Your task to perform on an android device: Open notification settings Image 0: 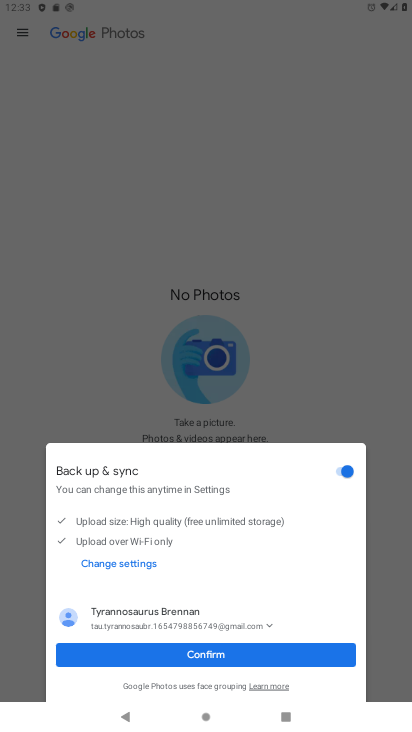
Step 0: press back button
Your task to perform on an android device: Open notification settings Image 1: 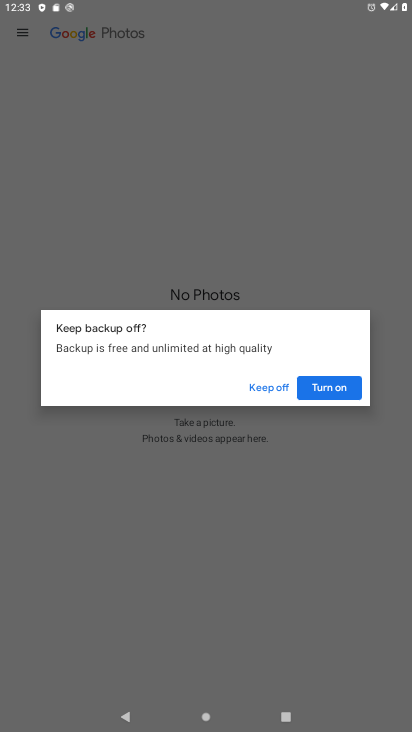
Step 1: click (282, 392)
Your task to perform on an android device: Open notification settings Image 2: 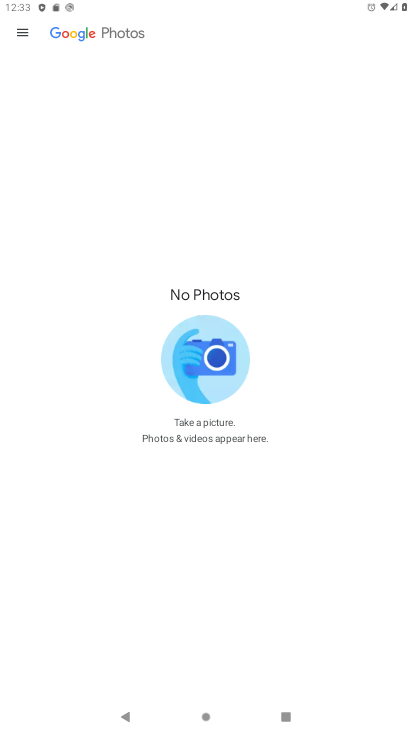
Step 2: press back button
Your task to perform on an android device: Open notification settings Image 3: 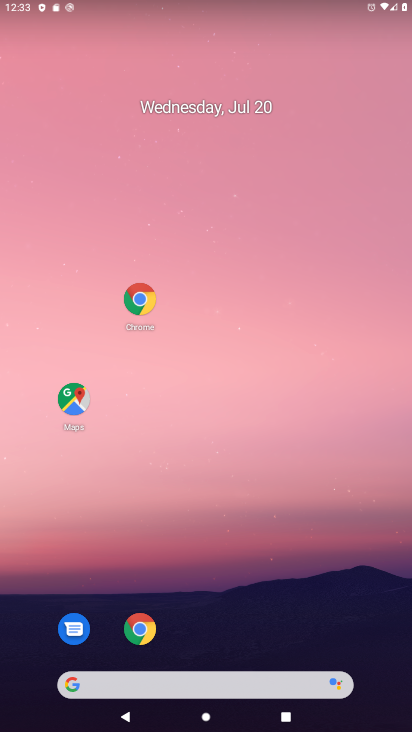
Step 3: drag from (241, 681) to (239, 200)
Your task to perform on an android device: Open notification settings Image 4: 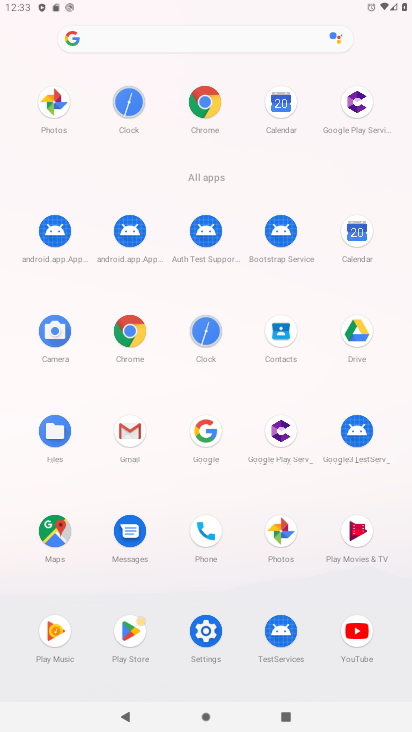
Step 4: click (210, 630)
Your task to perform on an android device: Open notification settings Image 5: 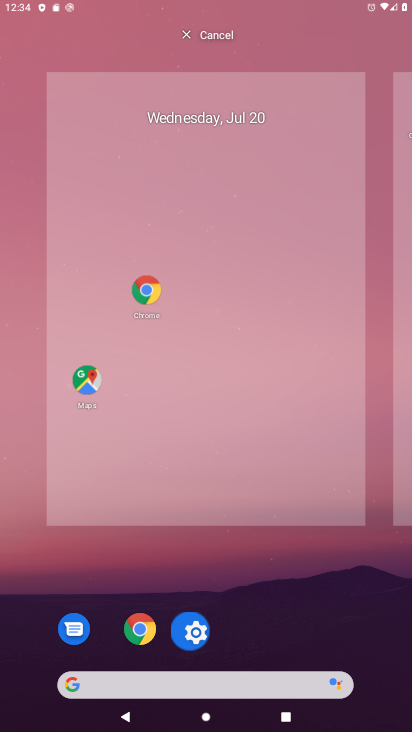
Step 5: click (195, 630)
Your task to perform on an android device: Open notification settings Image 6: 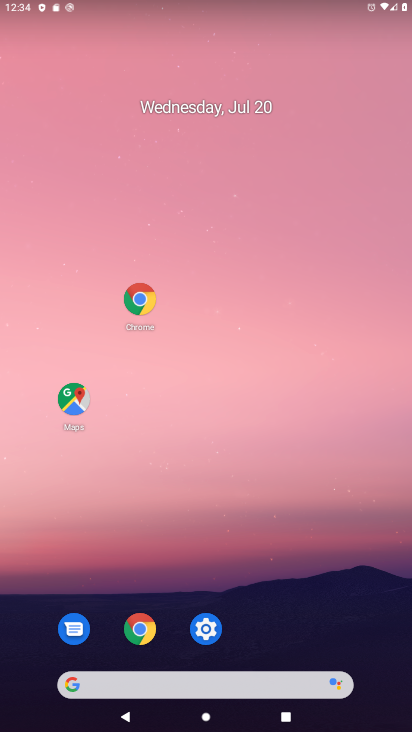
Step 6: drag from (221, 663) to (213, 123)
Your task to perform on an android device: Open notification settings Image 7: 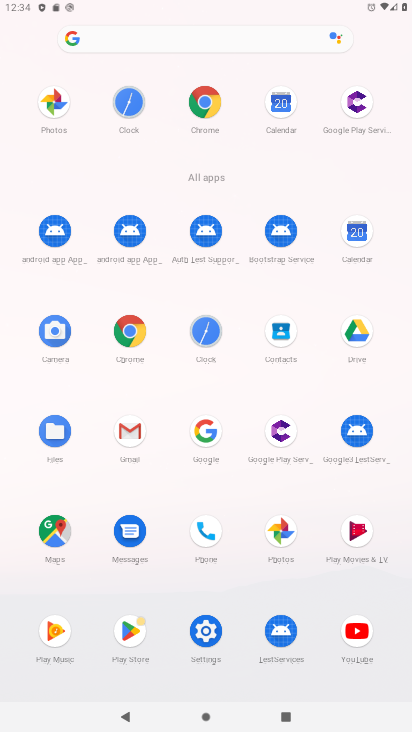
Step 7: click (201, 629)
Your task to perform on an android device: Open notification settings Image 8: 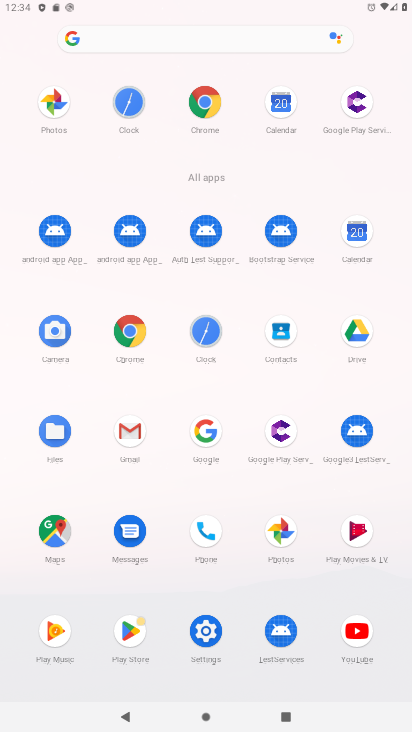
Step 8: click (201, 629)
Your task to perform on an android device: Open notification settings Image 9: 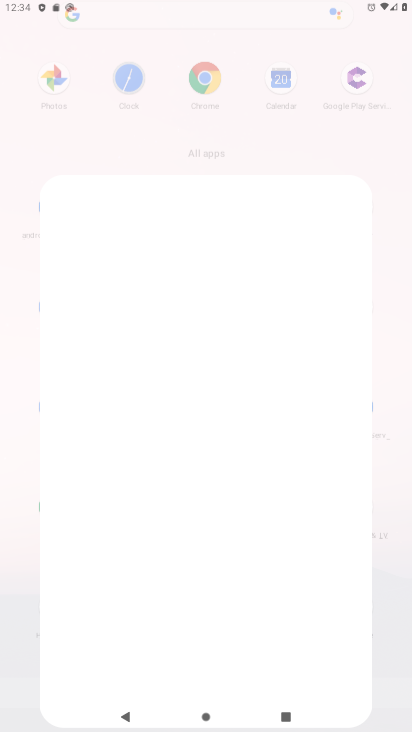
Step 9: click (204, 631)
Your task to perform on an android device: Open notification settings Image 10: 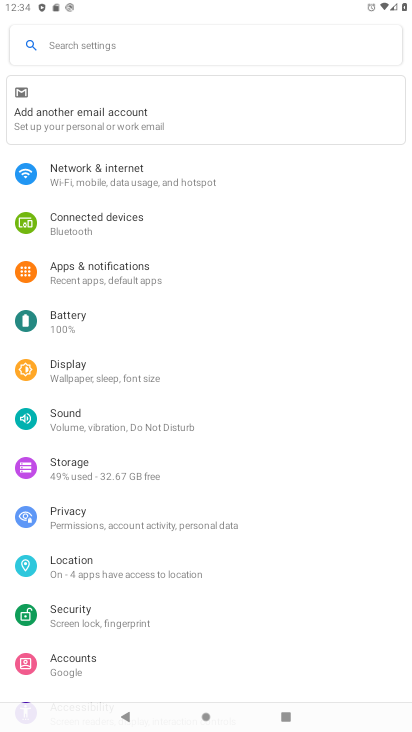
Step 10: click (72, 276)
Your task to perform on an android device: Open notification settings Image 11: 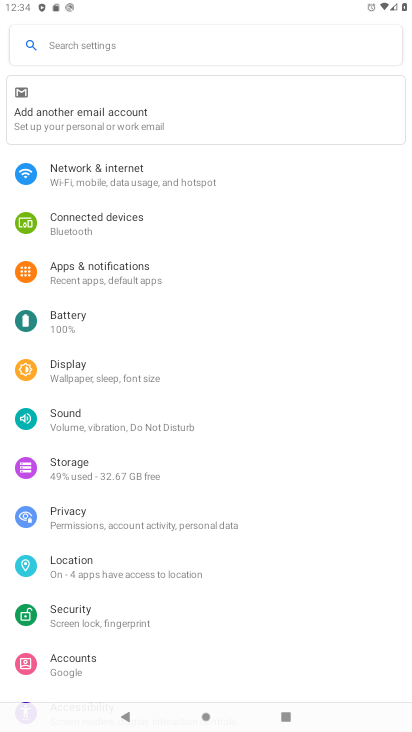
Step 11: click (72, 276)
Your task to perform on an android device: Open notification settings Image 12: 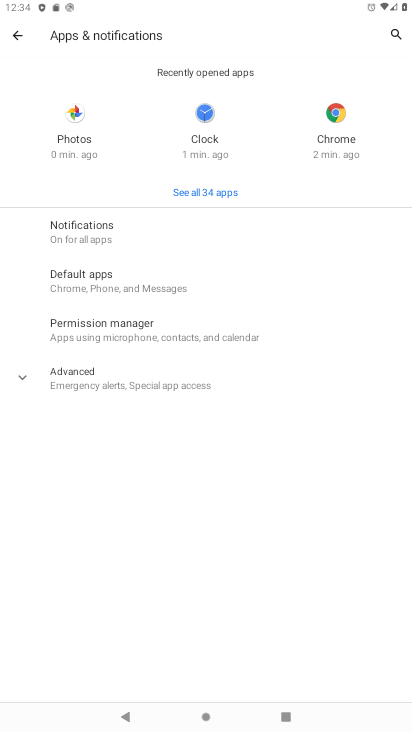
Step 12: click (71, 228)
Your task to perform on an android device: Open notification settings Image 13: 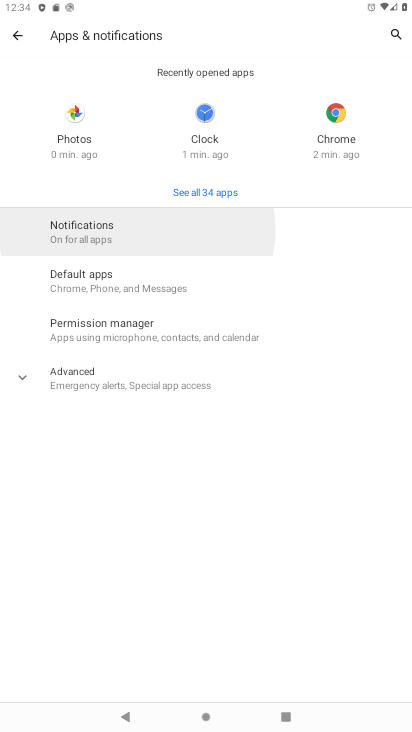
Step 13: click (81, 237)
Your task to perform on an android device: Open notification settings Image 14: 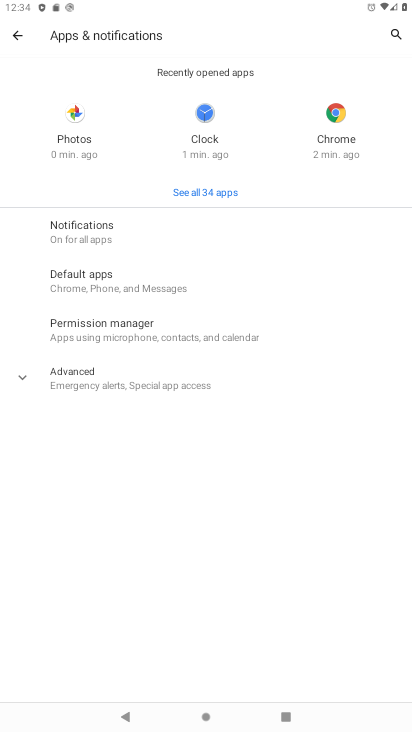
Step 14: click (82, 240)
Your task to perform on an android device: Open notification settings Image 15: 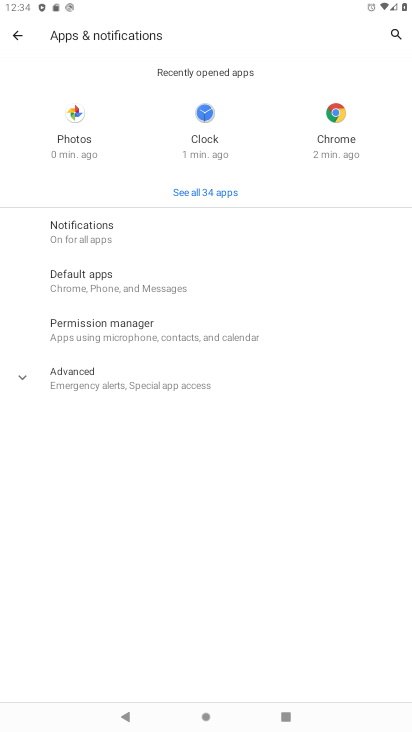
Step 15: click (82, 240)
Your task to perform on an android device: Open notification settings Image 16: 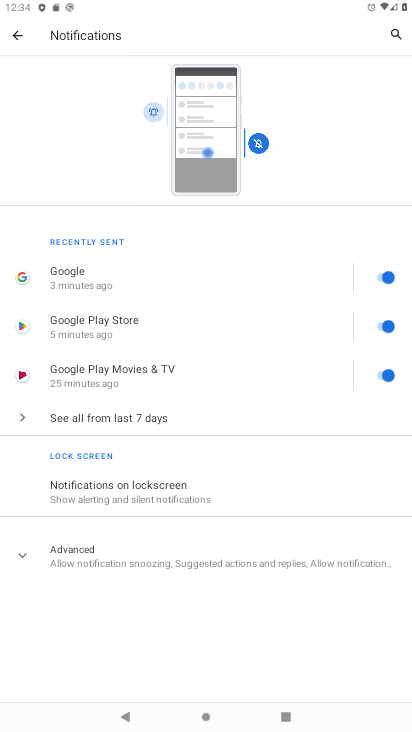
Step 16: task complete